Your task to perform on an android device: see sites visited before in the chrome app Image 0: 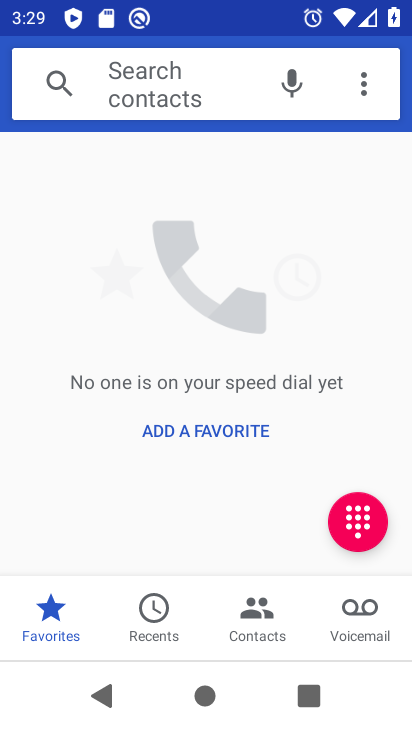
Step 0: press home button
Your task to perform on an android device: see sites visited before in the chrome app Image 1: 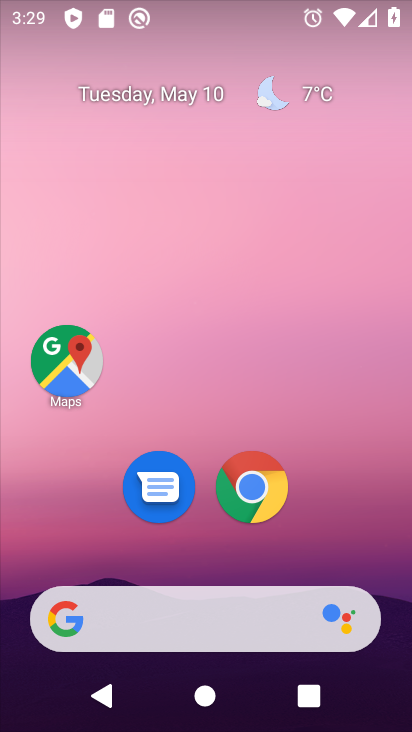
Step 1: click (256, 490)
Your task to perform on an android device: see sites visited before in the chrome app Image 2: 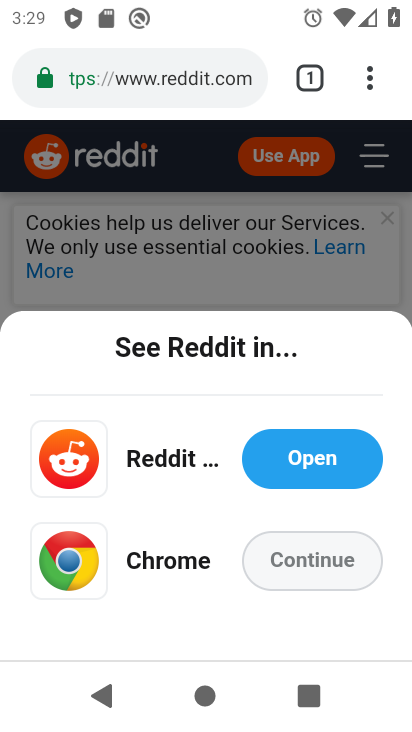
Step 2: task complete